Your task to perform on an android device: add a contact Image 0: 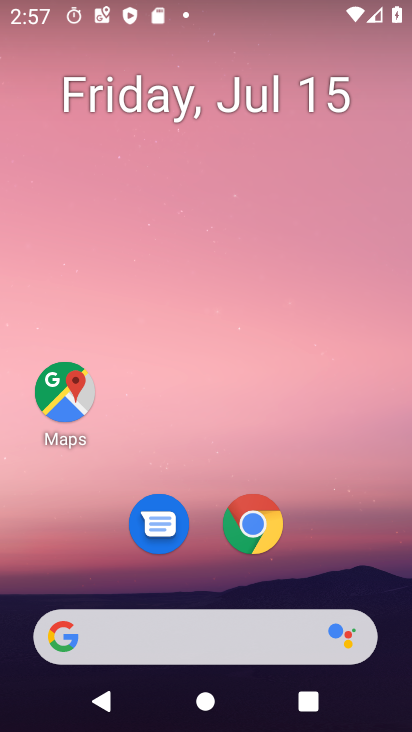
Step 0: drag from (250, 634) to (329, 164)
Your task to perform on an android device: add a contact Image 1: 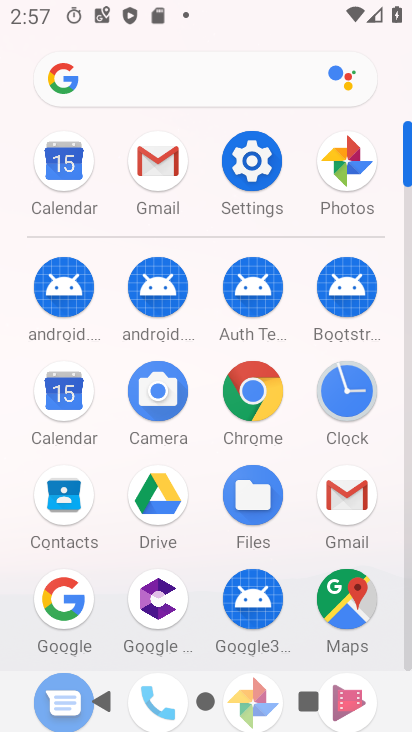
Step 1: click (69, 497)
Your task to perform on an android device: add a contact Image 2: 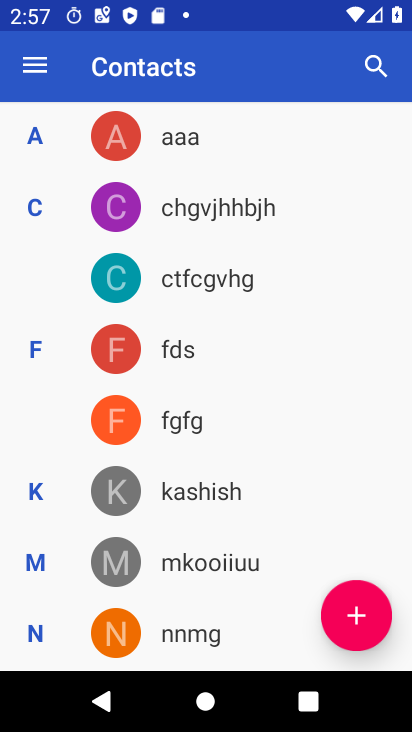
Step 2: click (353, 615)
Your task to perform on an android device: add a contact Image 3: 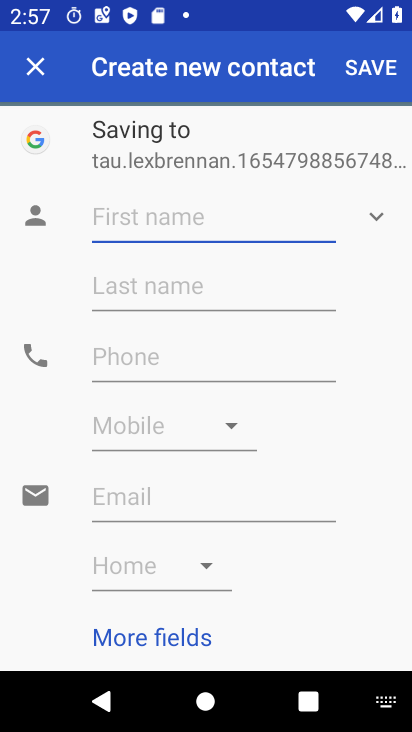
Step 3: type "vihgyth"
Your task to perform on an android device: add a contact Image 4: 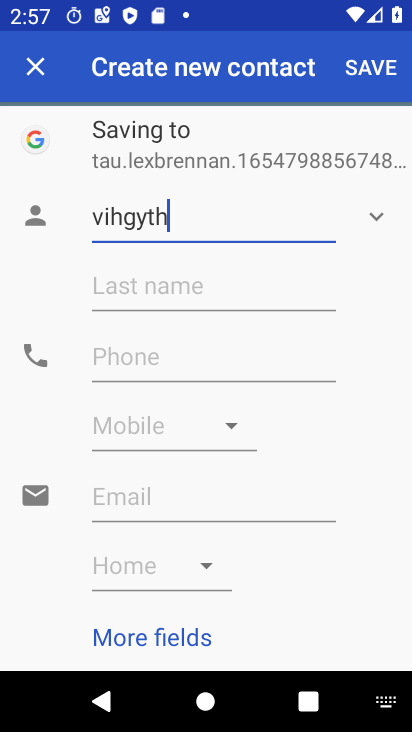
Step 4: click (186, 362)
Your task to perform on an android device: add a contact Image 5: 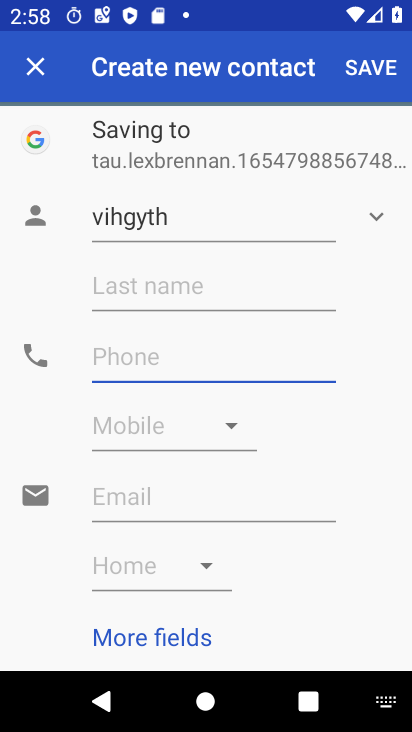
Step 5: type "67855667788"
Your task to perform on an android device: add a contact Image 6: 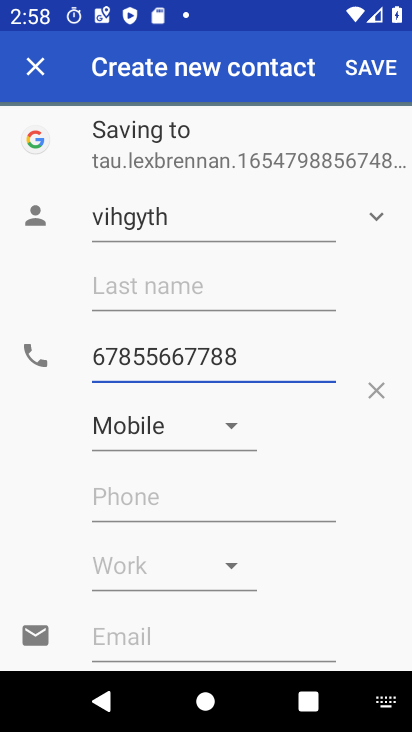
Step 6: click (376, 71)
Your task to perform on an android device: add a contact Image 7: 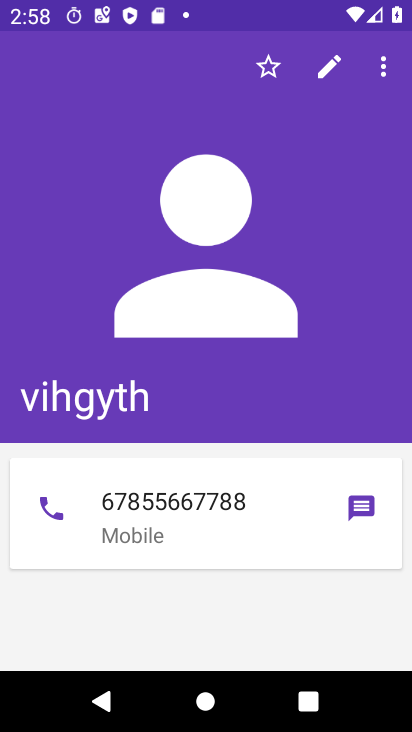
Step 7: task complete